Your task to perform on an android device: open chrome privacy settings Image 0: 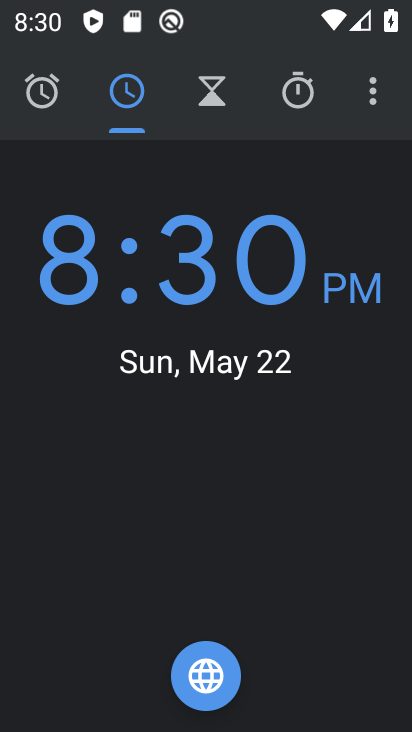
Step 0: press home button
Your task to perform on an android device: open chrome privacy settings Image 1: 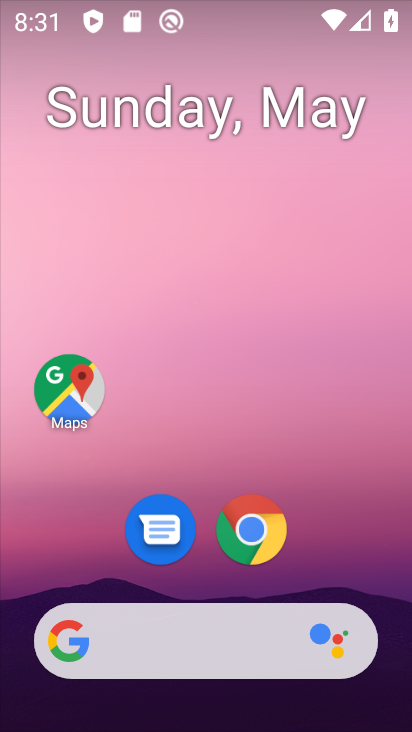
Step 1: click (253, 533)
Your task to perform on an android device: open chrome privacy settings Image 2: 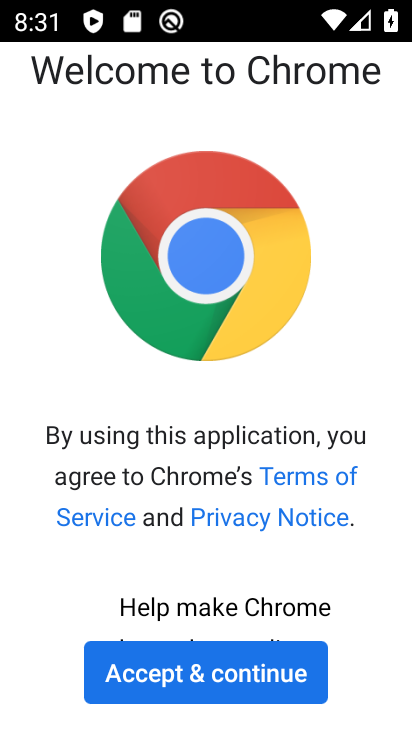
Step 2: click (228, 670)
Your task to perform on an android device: open chrome privacy settings Image 3: 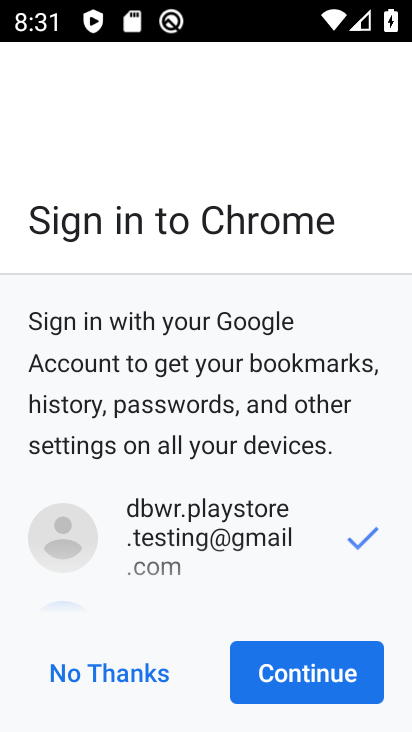
Step 3: click (246, 669)
Your task to perform on an android device: open chrome privacy settings Image 4: 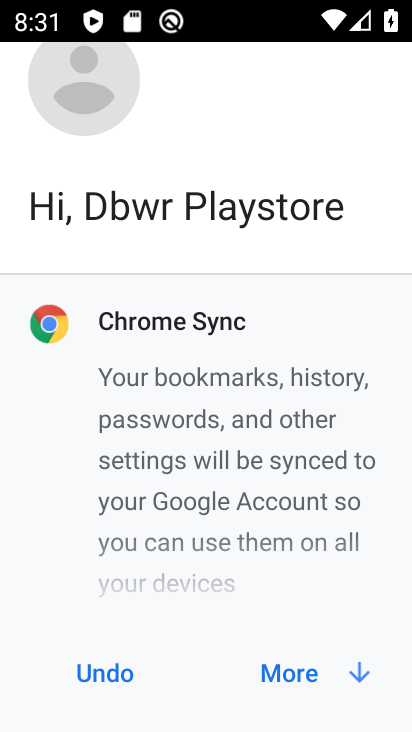
Step 4: click (272, 670)
Your task to perform on an android device: open chrome privacy settings Image 5: 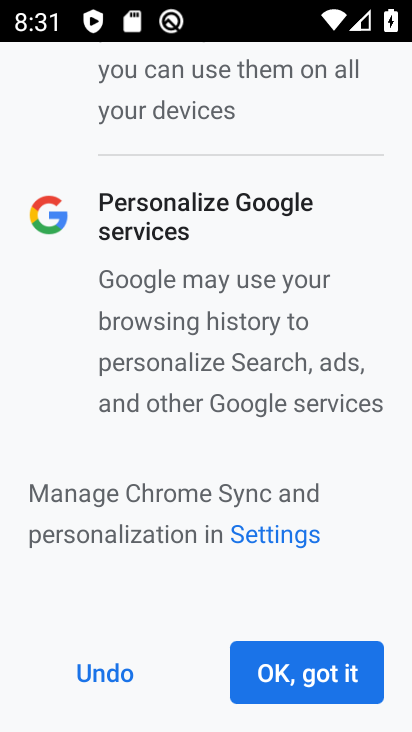
Step 5: click (272, 670)
Your task to perform on an android device: open chrome privacy settings Image 6: 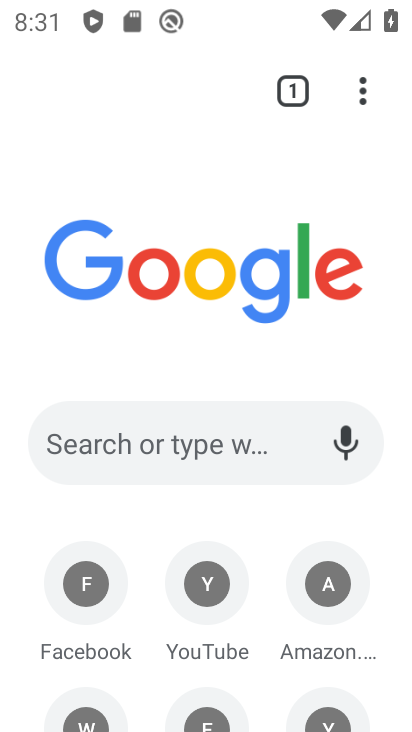
Step 6: click (361, 98)
Your task to perform on an android device: open chrome privacy settings Image 7: 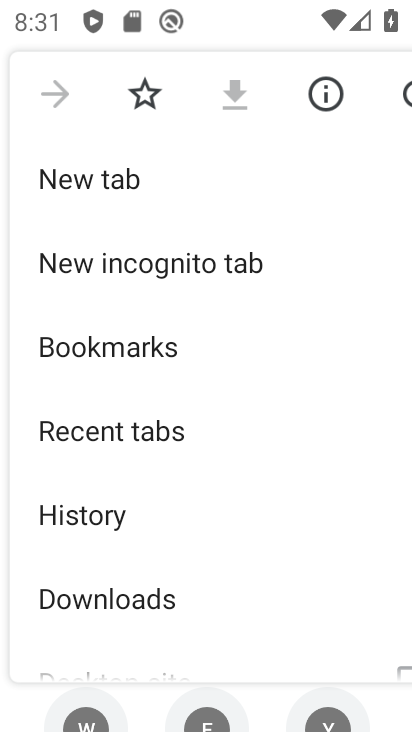
Step 7: drag from (146, 661) to (200, 180)
Your task to perform on an android device: open chrome privacy settings Image 8: 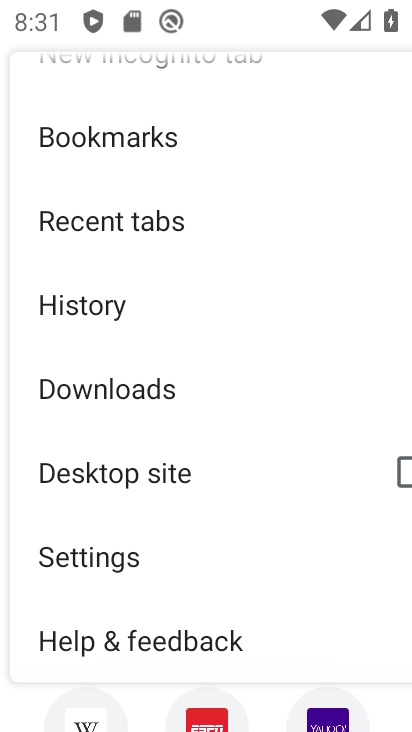
Step 8: click (126, 550)
Your task to perform on an android device: open chrome privacy settings Image 9: 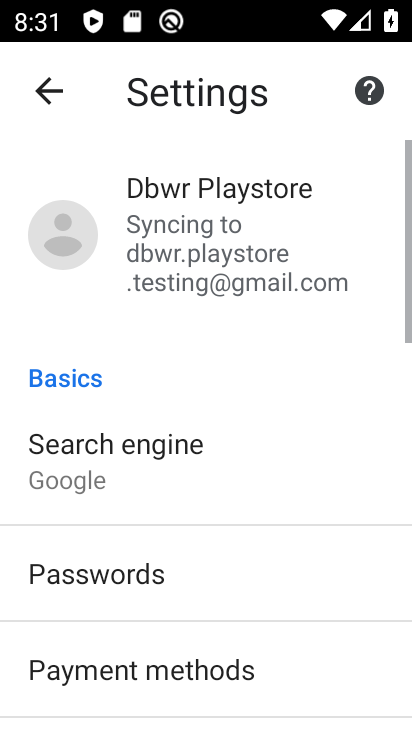
Step 9: drag from (164, 595) to (214, 140)
Your task to perform on an android device: open chrome privacy settings Image 10: 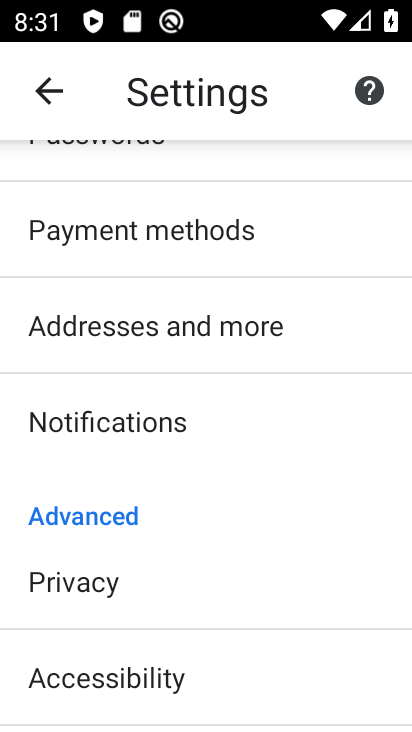
Step 10: click (82, 574)
Your task to perform on an android device: open chrome privacy settings Image 11: 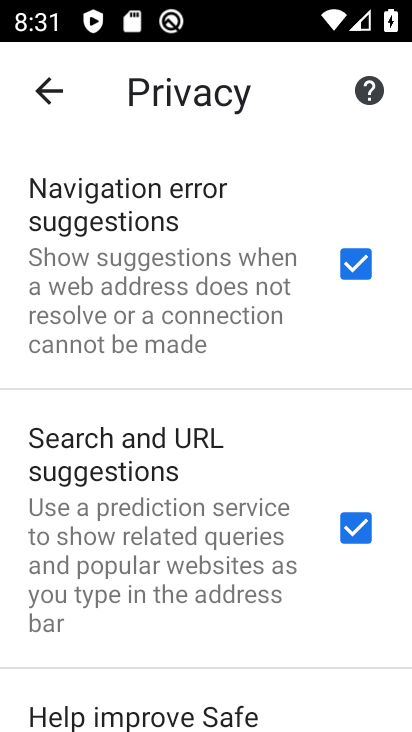
Step 11: task complete